Your task to perform on an android device: change the upload size in google photos Image 0: 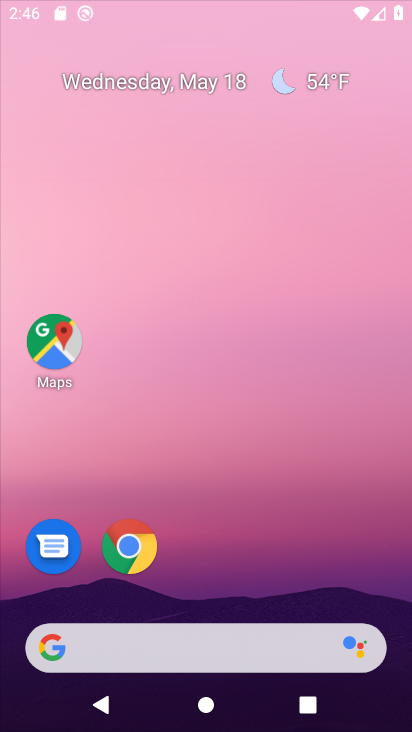
Step 0: drag from (363, 716) to (224, 239)
Your task to perform on an android device: change the upload size in google photos Image 1: 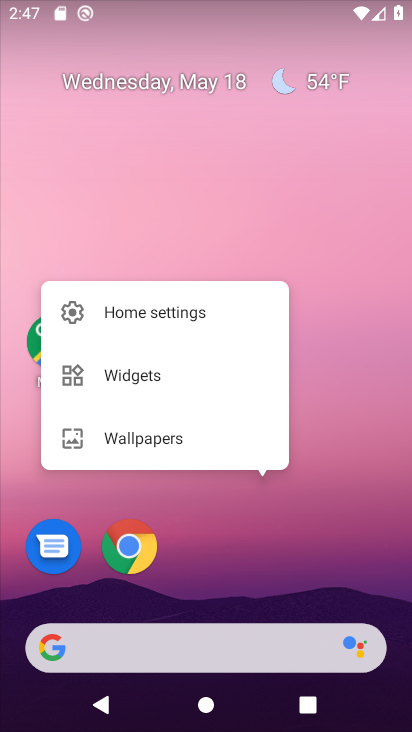
Step 1: click (114, 119)
Your task to perform on an android device: change the upload size in google photos Image 2: 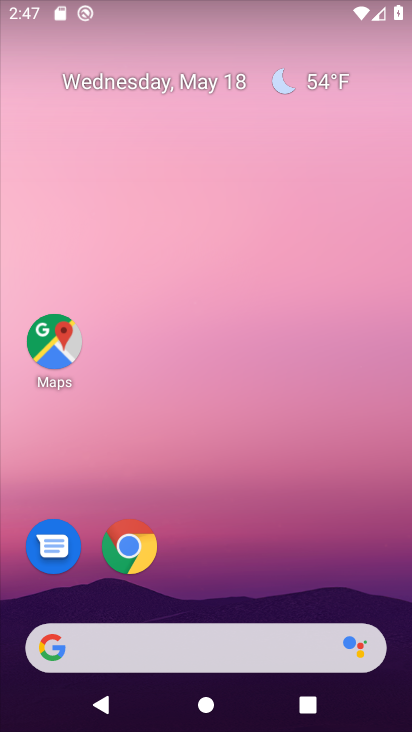
Step 2: drag from (256, 559) to (115, 12)
Your task to perform on an android device: change the upload size in google photos Image 3: 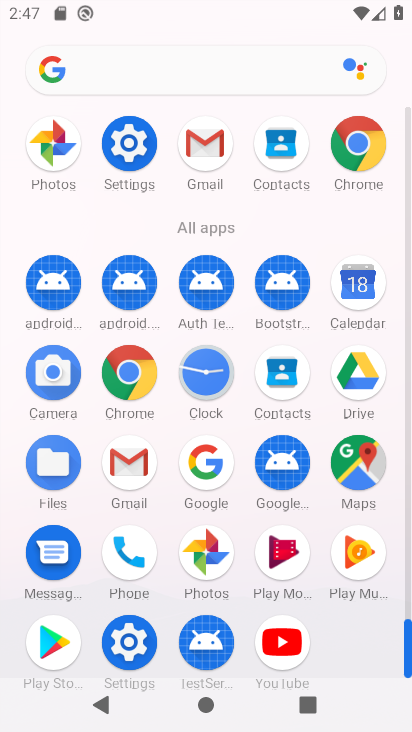
Step 3: drag from (206, 433) to (133, 104)
Your task to perform on an android device: change the upload size in google photos Image 4: 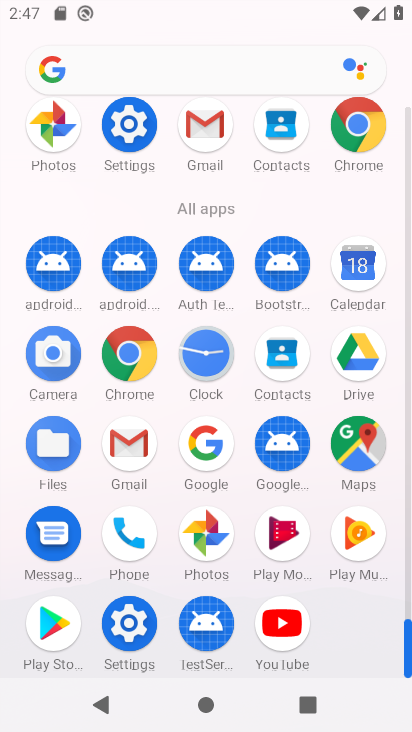
Step 4: click (211, 532)
Your task to perform on an android device: change the upload size in google photos Image 5: 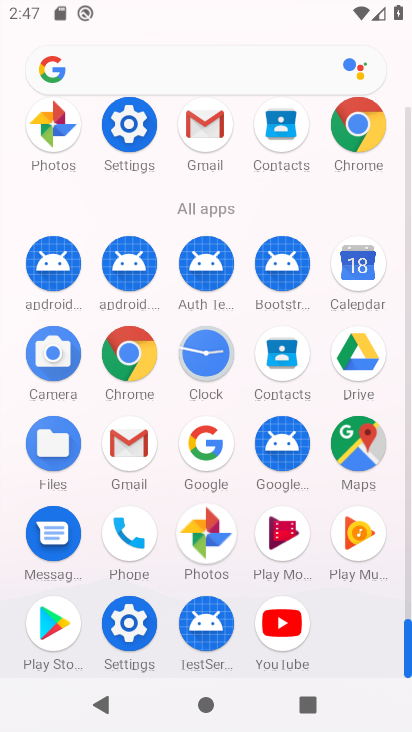
Step 5: click (211, 532)
Your task to perform on an android device: change the upload size in google photos Image 6: 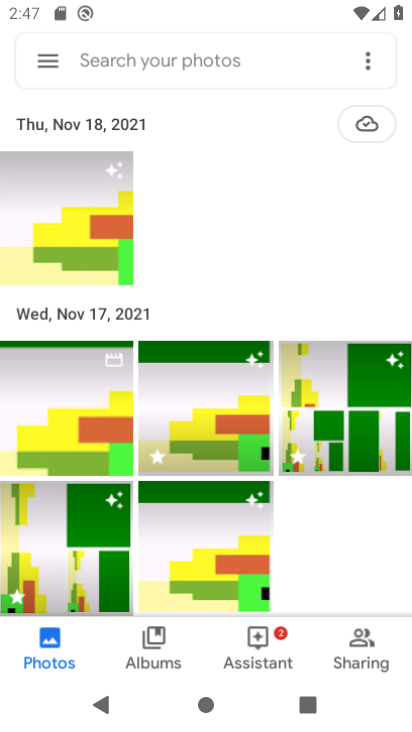
Step 6: click (212, 529)
Your task to perform on an android device: change the upload size in google photos Image 7: 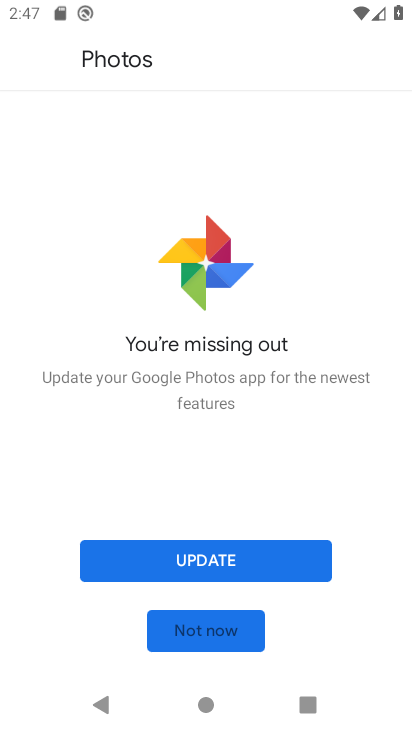
Step 7: click (197, 614)
Your task to perform on an android device: change the upload size in google photos Image 8: 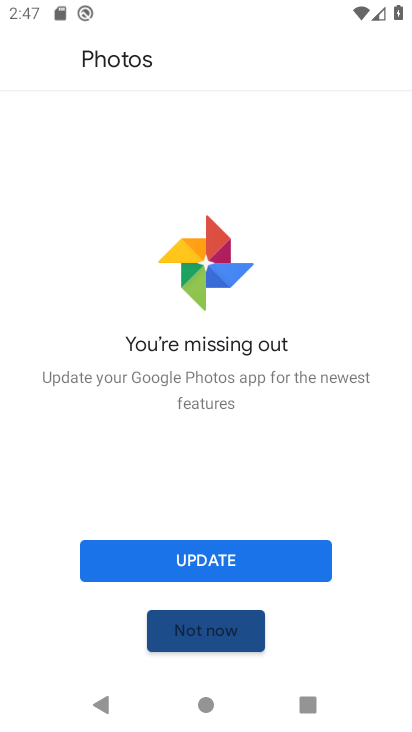
Step 8: click (199, 618)
Your task to perform on an android device: change the upload size in google photos Image 9: 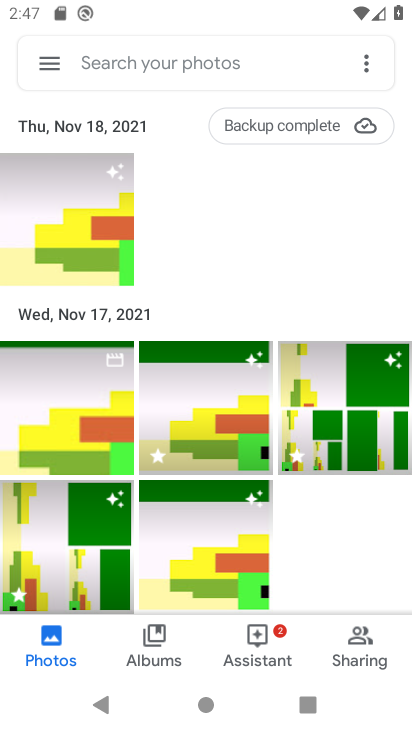
Step 9: task complete